Your task to perform on an android device: all mails in gmail Image 0: 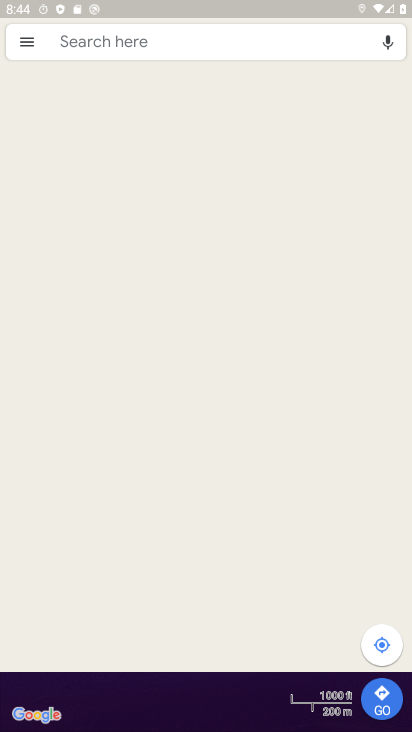
Step 0: click (219, 404)
Your task to perform on an android device: all mails in gmail Image 1: 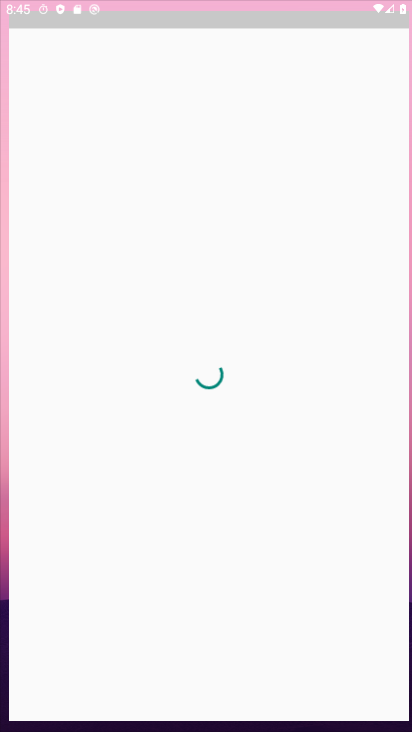
Step 1: press home button
Your task to perform on an android device: all mails in gmail Image 2: 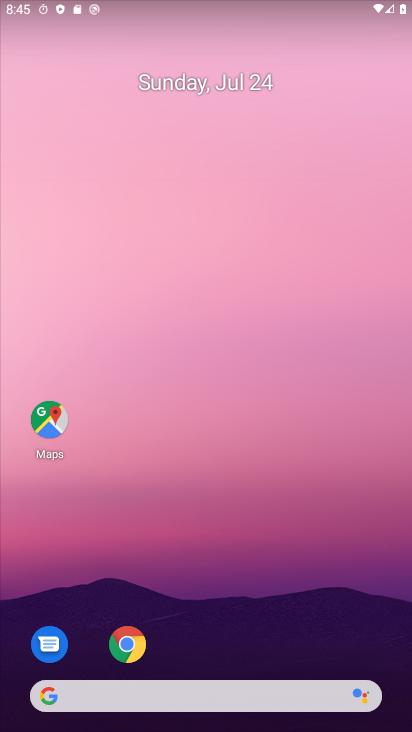
Step 2: drag from (162, 679) to (190, 314)
Your task to perform on an android device: all mails in gmail Image 3: 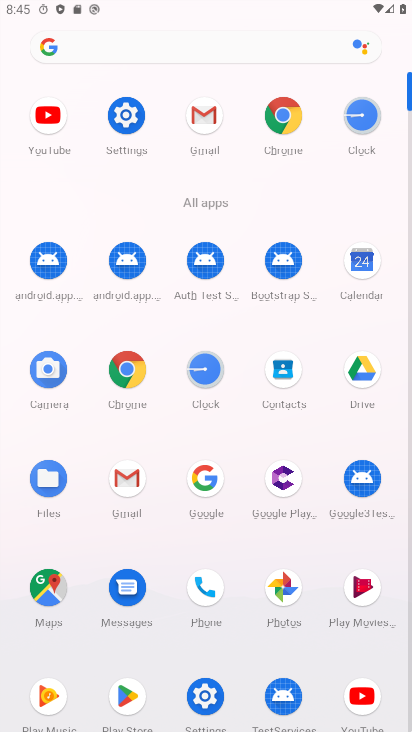
Step 3: click (203, 119)
Your task to perform on an android device: all mails in gmail Image 4: 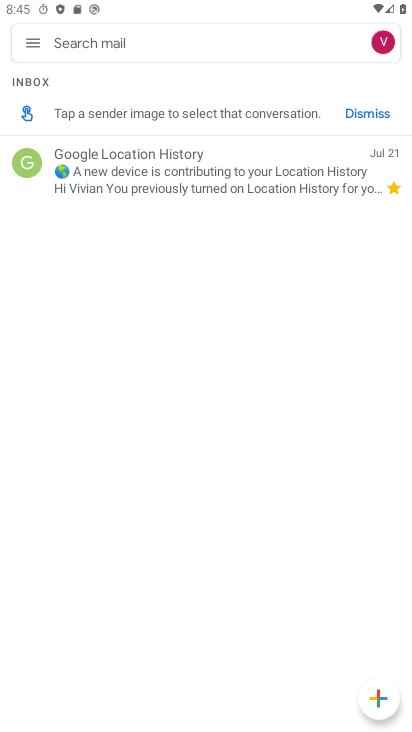
Step 4: click (31, 41)
Your task to perform on an android device: all mails in gmail Image 5: 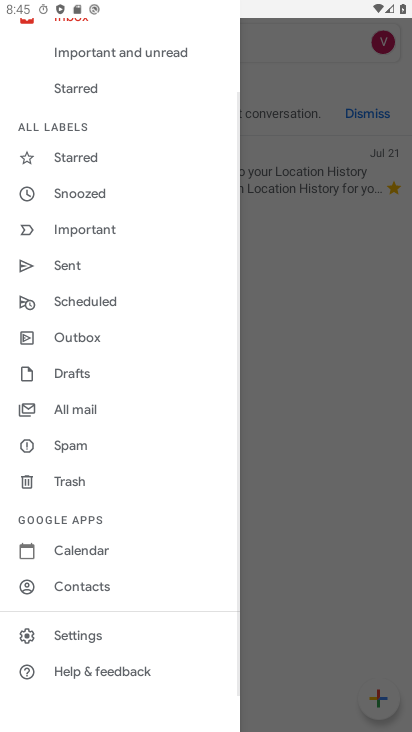
Step 5: click (72, 406)
Your task to perform on an android device: all mails in gmail Image 6: 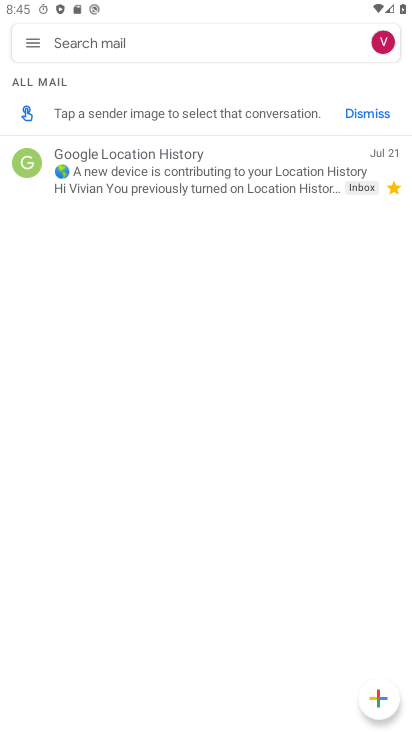
Step 6: task complete